Your task to perform on an android device: change alarm snooze length Image 0: 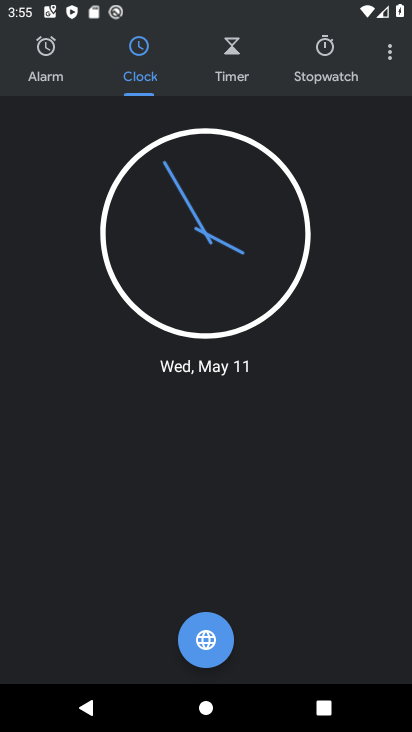
Step 0: click (386, 57)
Your task to perform on an android device: change alarm snooze length Image 1: 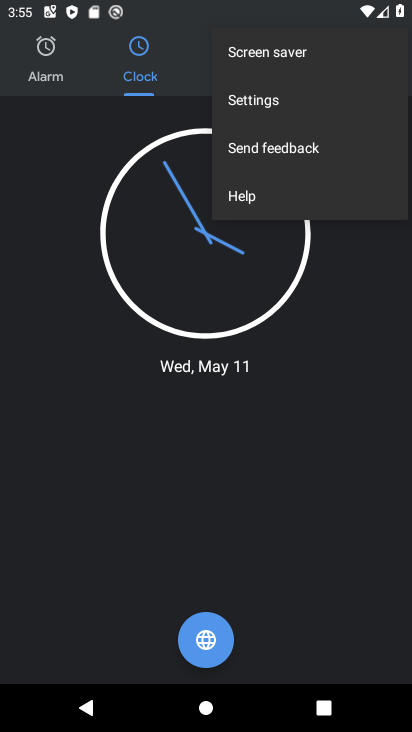
Step 1: click (274, 96)
Your task to perform on an android device: change alarm snooze length Image 2: 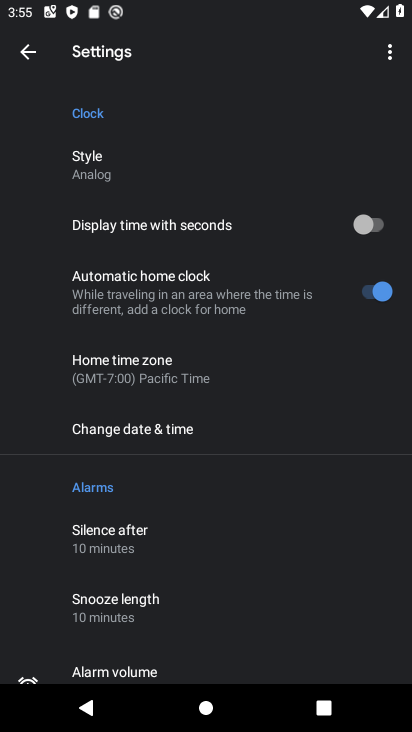
Step 2: click (155, 608)
Your task to perform on an android device: change alarm snooze length Image 3: 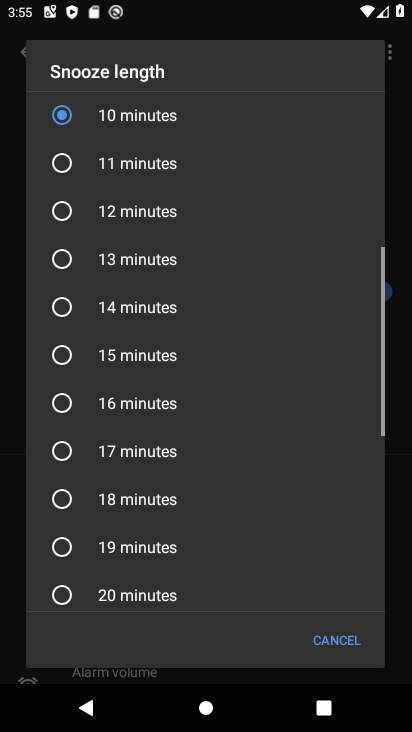
Step 3: click (154, 501)
Your task to perform on an android device: change alarm snooze length Image 4: 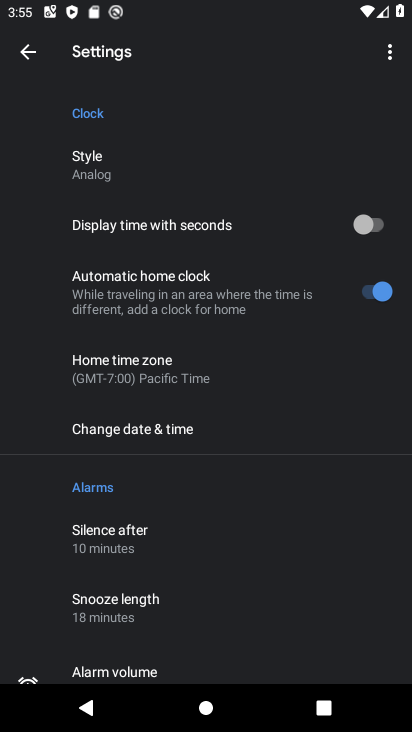
Step 4: task complete